Your task to perform on an android device: Open the map Image 0: 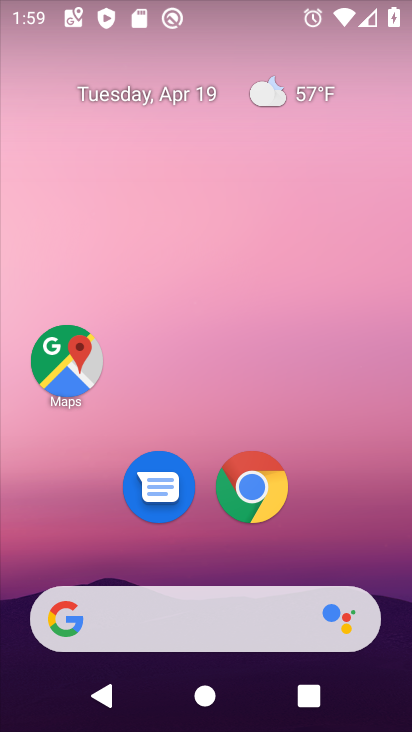
Step 0: click (258, 490)
Your task to perform on an android device: Open the map Image 1: 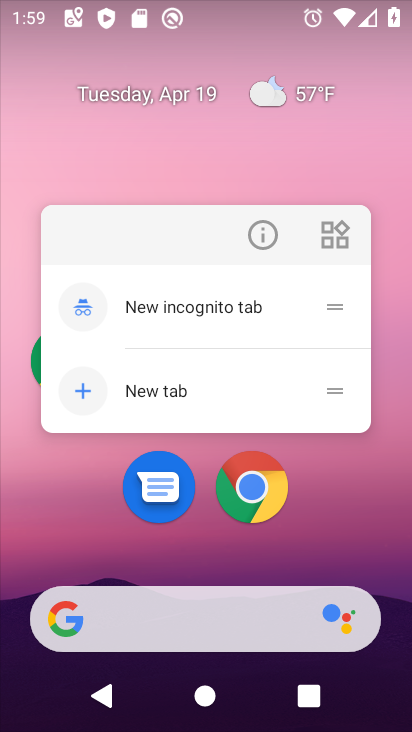
Step 1: click (368, 503)
Your task to perform on an android device: Open the map Image 2: 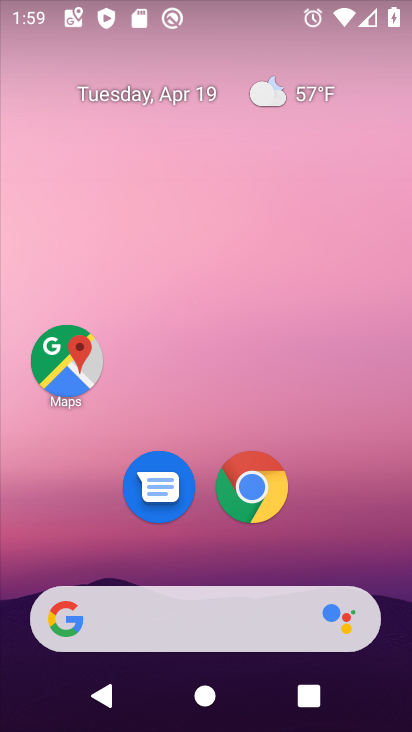
Step 2: click (73, 359)
Your task to perform on an android device: Open the map Image 3: 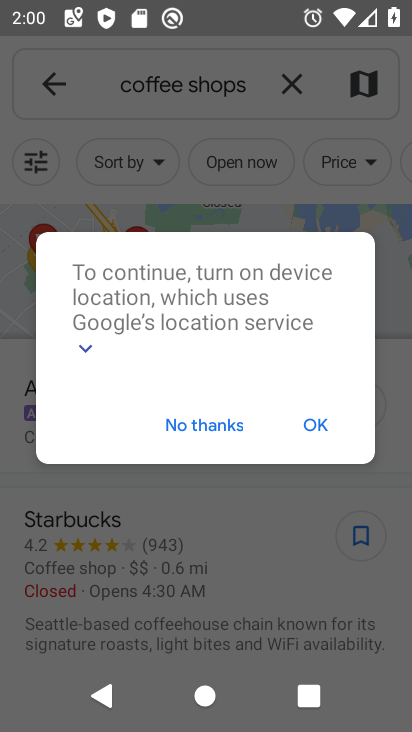
Step 3: click (208, 429)
Your task to perform on an android device: Open the map Image 4: 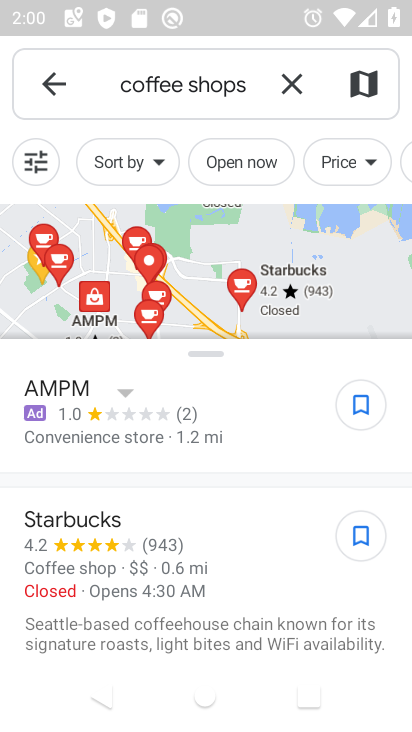
Step 4: task complete